Your task to perform on an android device: What's the weather going to be tomorrow? Image 0: 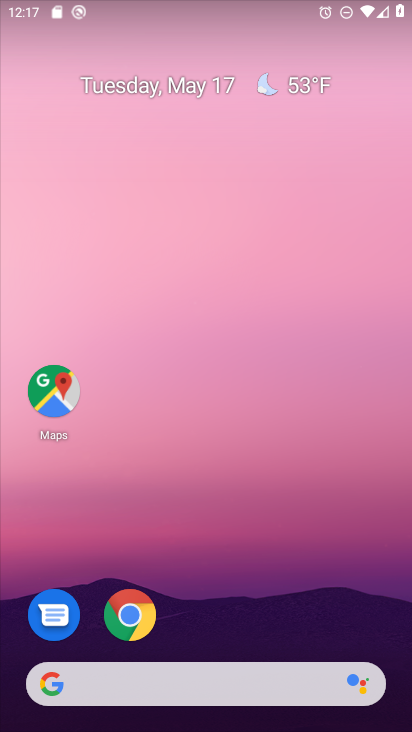
Step 0: drag from (193, 662) to (226, 203)
Your task to perform on an android device: What's the weather going to be tomorrow? Image 1: 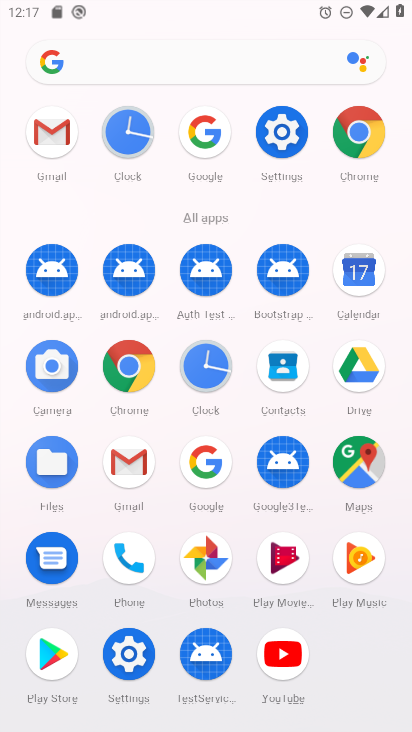
Step 1: click (207, 472)
Your task to perform on an android device: What's the weather going to be tomorrow? Image 2: 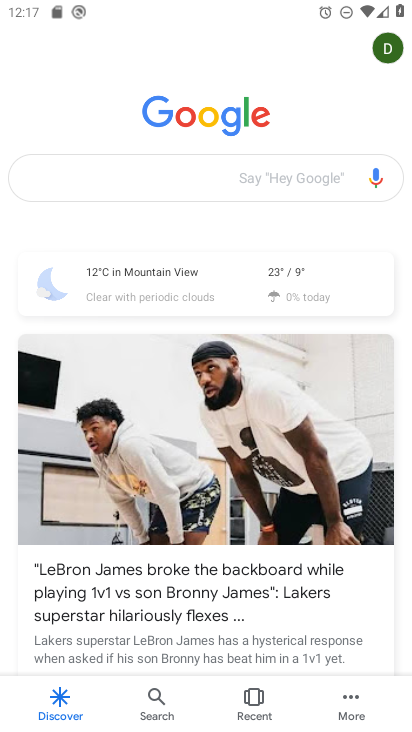
Step 2: click (214, 168)
Your task to perform on an android device: What's the weather going to be tomorrow? Image 3: 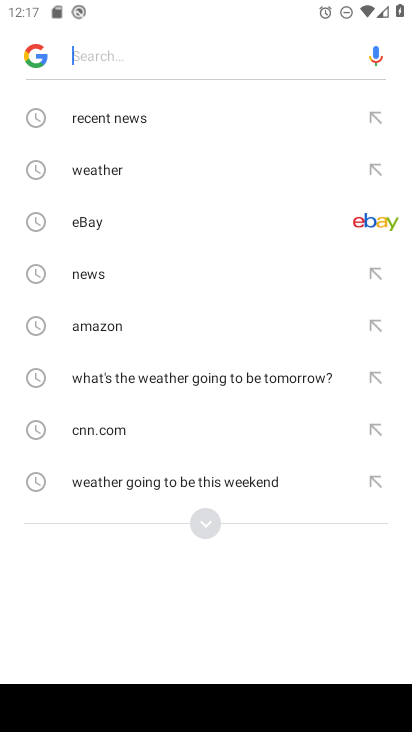
Step 3: click (141, 371)
Your task to perform on an android device: What's the weather going to be tomorrow? Image 4: 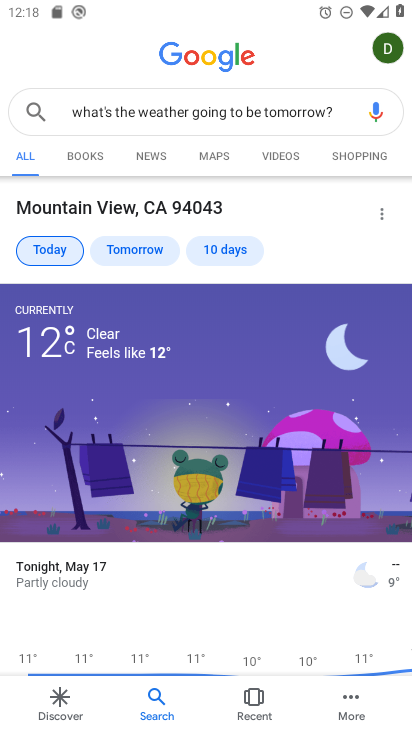
Step 4: click (131, 239)
Your task to perform on an android device: What's the weather going to be tomorrow? Image 5: 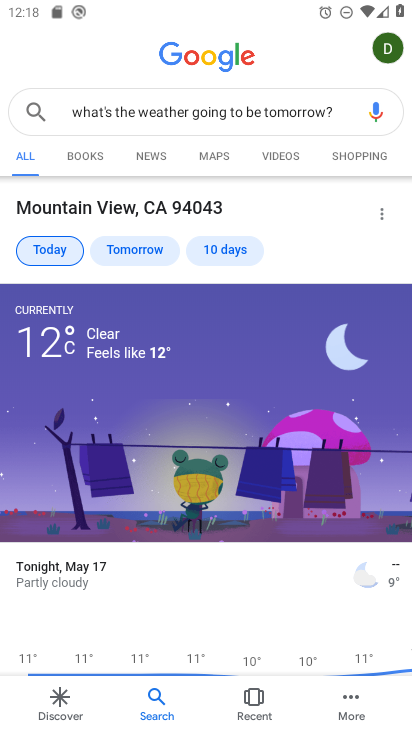
Step 5: click (135, 239)
Your task to perform on an android device: What's the weather going to be tomorrow? Image 6: 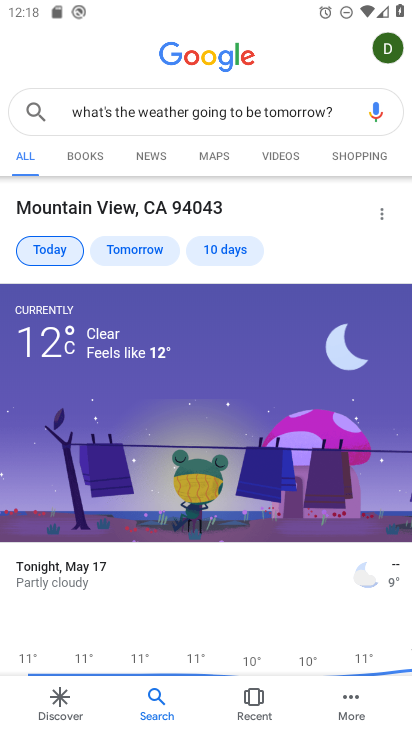
Step 6: click (152, 244)
Your task to perform on an android device: What's the weather going to be tomorrow? Image 7: 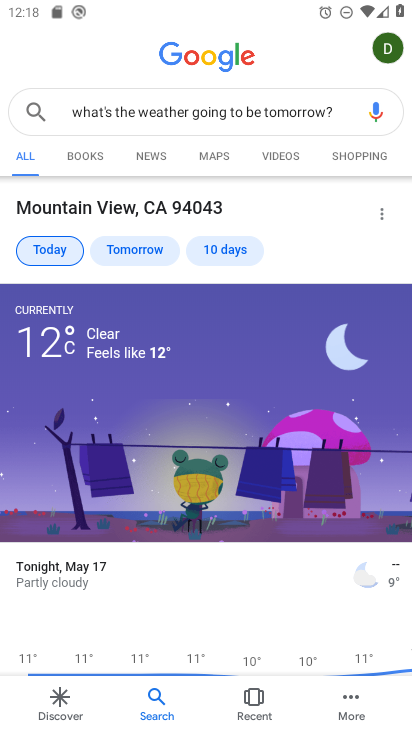
Step 7: drag from (201, 553) to (203, 294)
Your task to perform on an android device: What's the weather going to be tomorrow? Image 8: 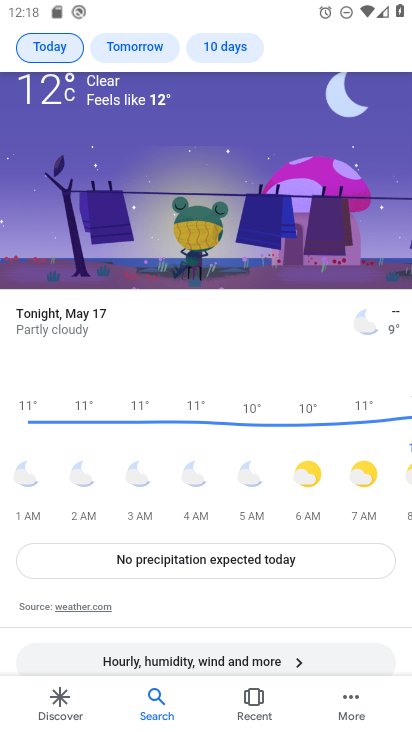
Step 8: drag from (218, 205) to (231, 557)
Your task to perform on an android device: What's the weather going to be tomorrow? Image 9: 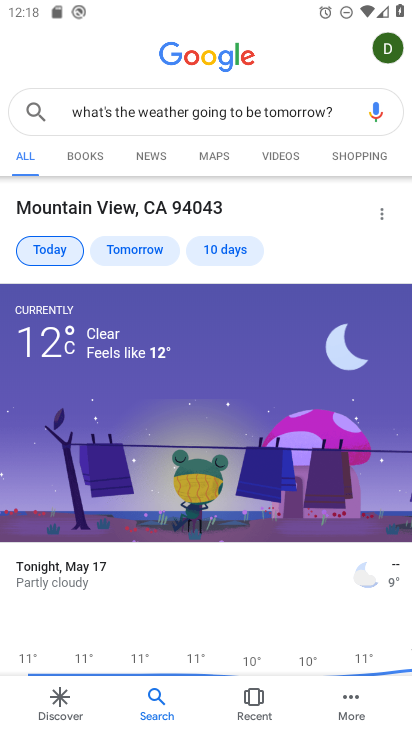
Step 9: click (135, 251)
Your task to perform on an android device: What's the weather going to be tomorrow? Image 10: 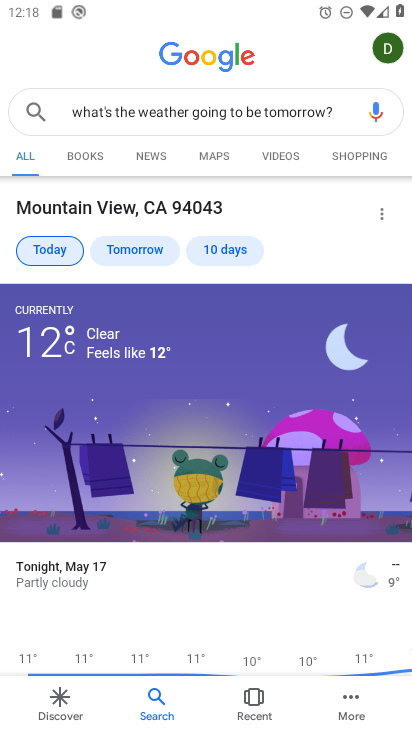
Step 10: click (135, 251)
Your task to perform on an android device: What's the weather going to be tomorrow? Image 11: 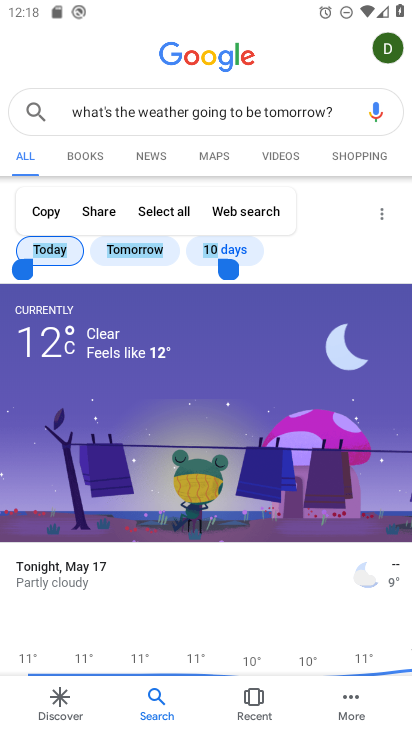
Step 11: click (157, 297)
Your task to perform on an android device: What's the weather going to be tomorrow? Image 12: 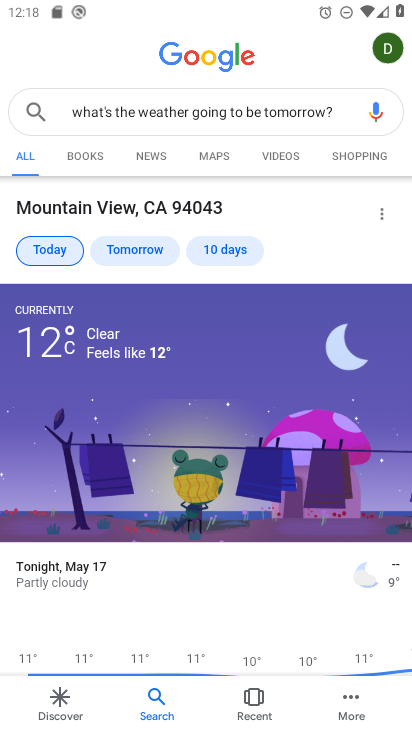
Step 12: click (147, 278)
Your task to perform on an android device: What's the weather going to be tomorrow? Image 13: 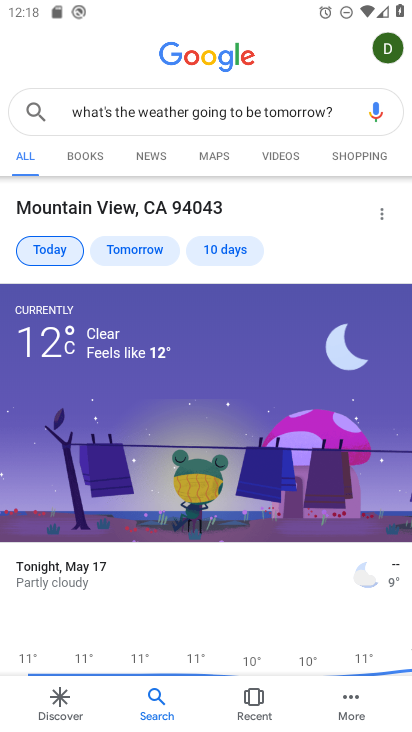
Step 13: drag from (43, 243) to (159, 242)
Your task to perform on an android device: What's the weather going to be tomorrow? Image 14: 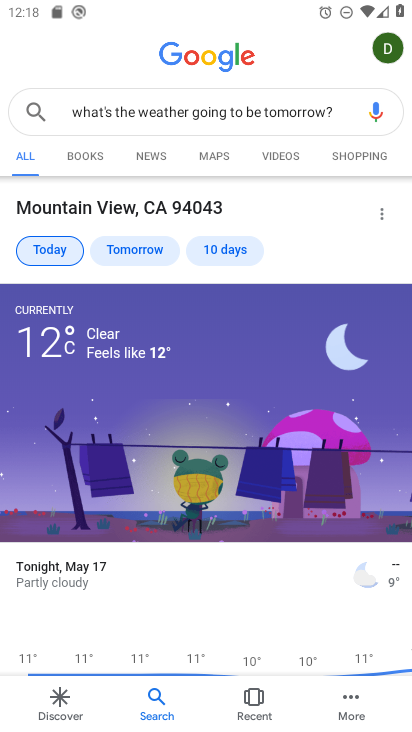
Step 14: click (111, 254)
Your task to perform on an android device: What's the weather going to be tomorrow? Image 15: 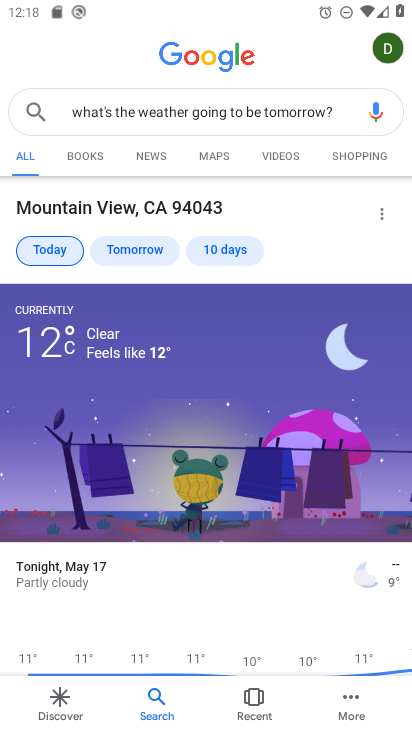
Step 15: task complete